Your task to perform on an android device: change your default location settings in chrome Image 0: 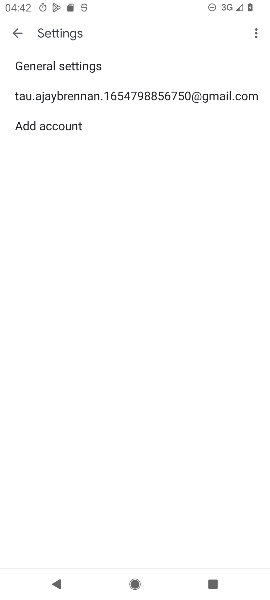
Step 0: press home button
Your task to perform on an android device: change your default location settings in chrome Image 1: 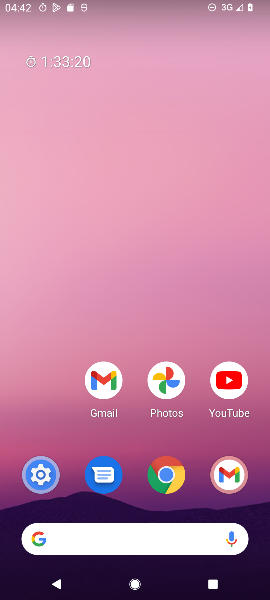
Step 1: drag from (45, 434) to (59, 145)
Your task to perform on an android device: change your default location settings in chrome Image 2: 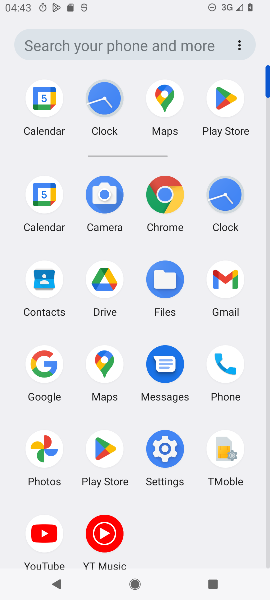
Step 2: click (166, 198)
Your task to perform on an android device: change your default location settings in chrome Image 3: 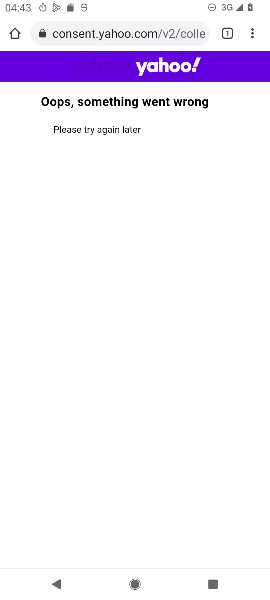
Step 3: click (252, 36)
Your task to perform on an android device: change your default location settings in chrome Image 4: 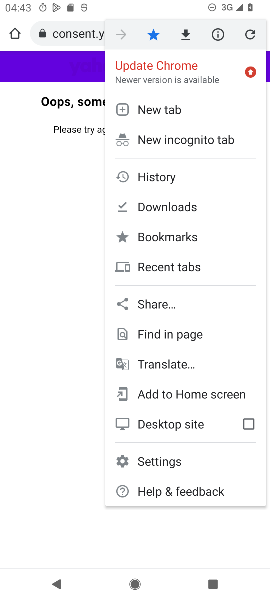
Step 4: click (180, 457)
Your task to perform on an android device: change your default location settings in chrome Image 5: 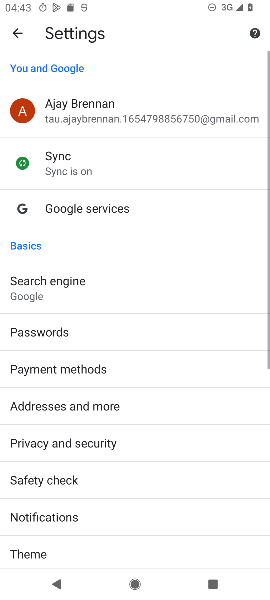
Step 5: drag from (180, 457) to (184, 378)
Your task to perform on an android device: change your default location settings in chrome Image 6: 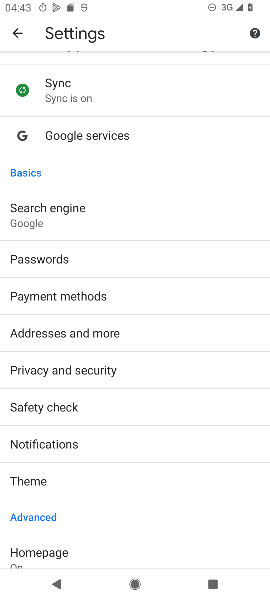
Step 6: drag from (180, 468) to (188, 402)
Your task to perform on an android device: change your default location settings in chrome Image 7: 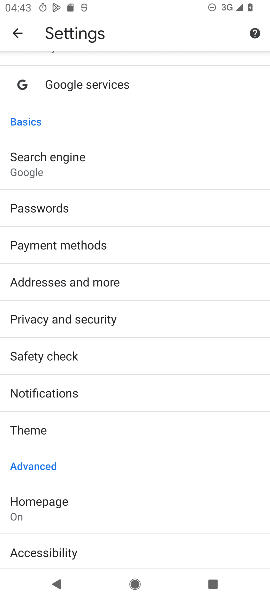
Step 7: drag from (181, 493) to (192, 399)
Your task to perform on an android device: change your default location settings in chrome Image 8: 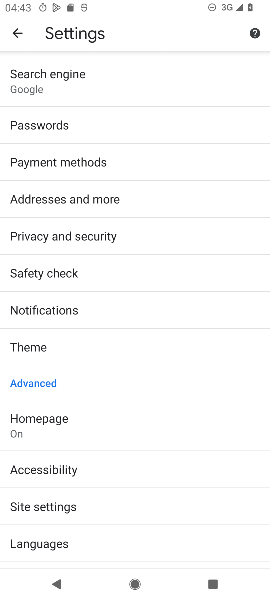
Step 8: drag from (182, 475) to (186, 393)
Your task to perform on an android device: change your default location settings in chrome Image 9: 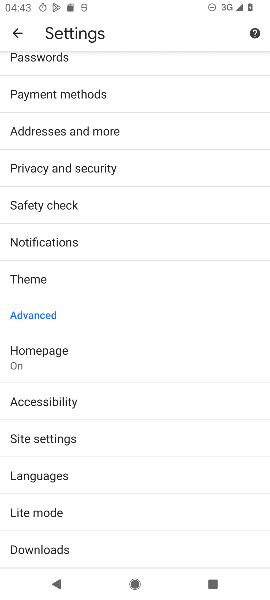
Step 9: drag from (179, 437) to (174, 348)
Your task to perform on an android device: change your default location settings in chrome Image 10: 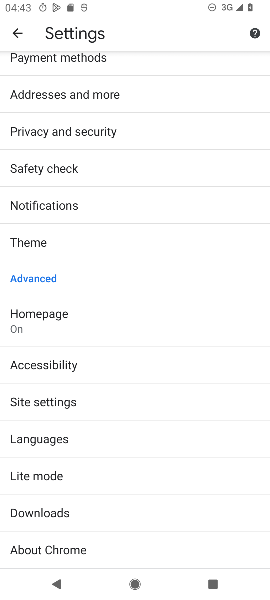
Step 10: drag from (174, 240) to (186, 371)
Your task to perform on an android device: change your default location settings in chrome Image 11: 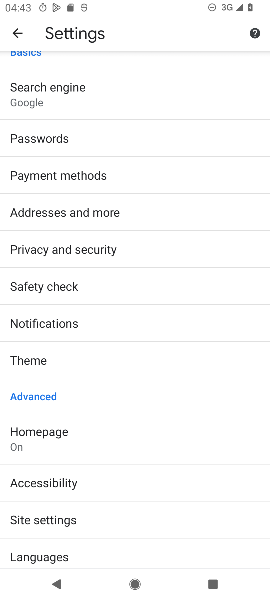
Step 11: click (147, 525)
Your task to perform on an android device: change your default location settings in chrome Image 12: 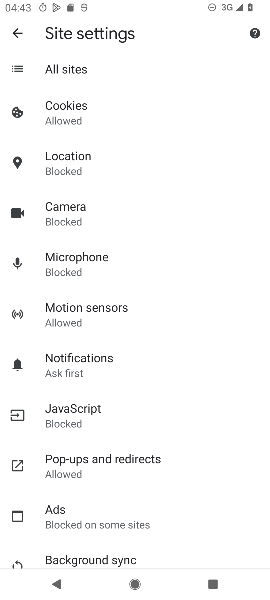
Step 12: drag from (183, 383) to (183, 234)
Your task to perform on an android device: change your default location settings in chrome Image 13: 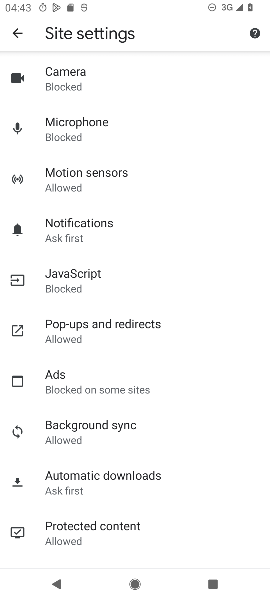
Step 13: drag from (206, 375) to (217, 301)
Your task to perform on an android device: change your default location settings in chrome Image 14: 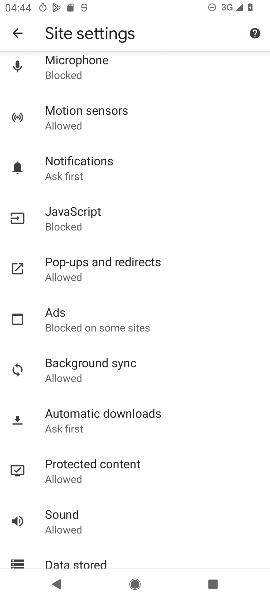
Step 14: drag from (214, 372) to (213, 292)
Your task to perform on an android device: change your default location settings in chrome Image 15: 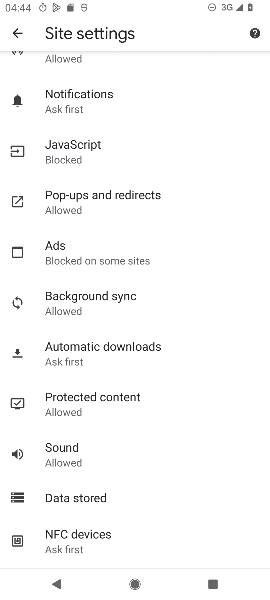
Step 15: drag from (222, 388) to (225, 327)
Your task to perform on an android device: change your default location settings in chrome Image 16: 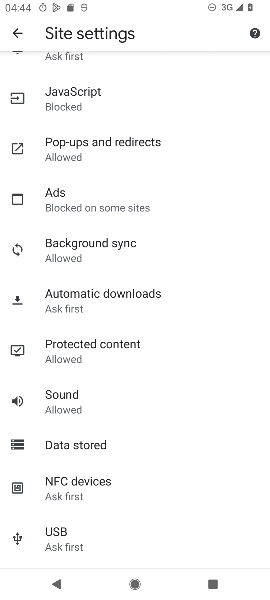
Step 16: drag from (225, 414) to (222, 309)
Your task to perform on an android device: change your default location settings in chrome Image 17: 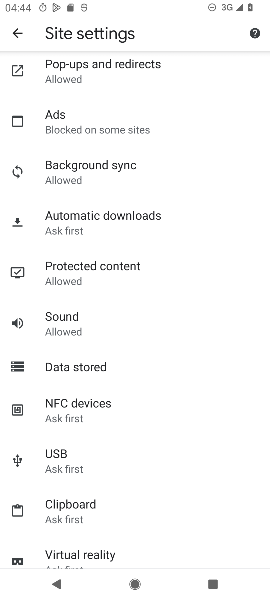
Step 17: drag from (217, 205) to (218, 300)
Your task to perform on an android device: change your default location settings in chrome Image 18: 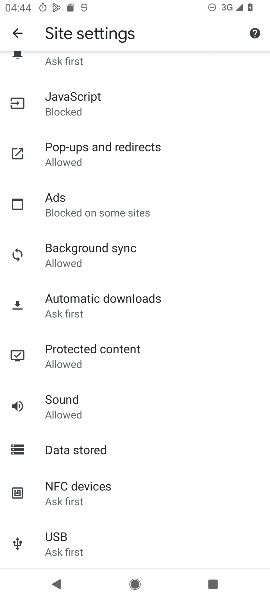
Step 18: drag from (219, 186) to (221, 288)
Your task to perform on an android device: change your default location settings in chrome Image 19: 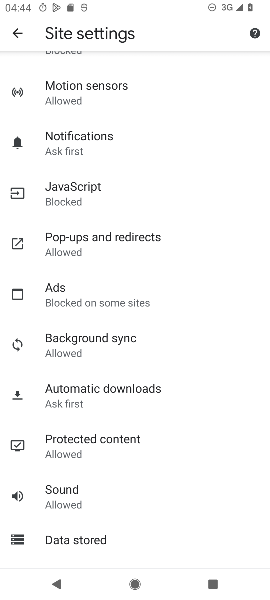
Step 19: drag from (202, 205) to (206, 328)
Your task to perform on an android device: change your default location settings in chrome Image 20: 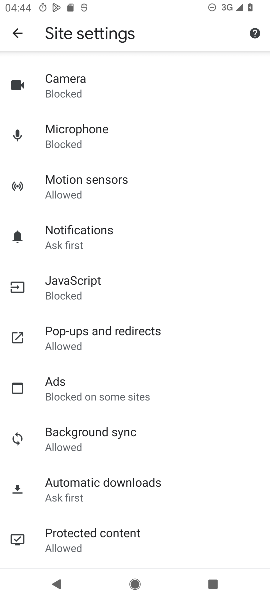
Step 20: drag from (220, 118) to (211, 272)
Your task to perform on an android device: change your default location settings in chrome Image 21: 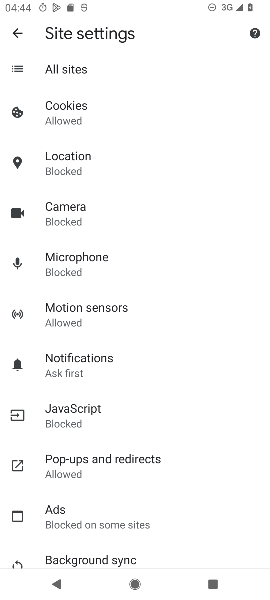
Step 21: click (103, 157)
Your task to perform on an android device: change your default location settings in chrome Image 22: 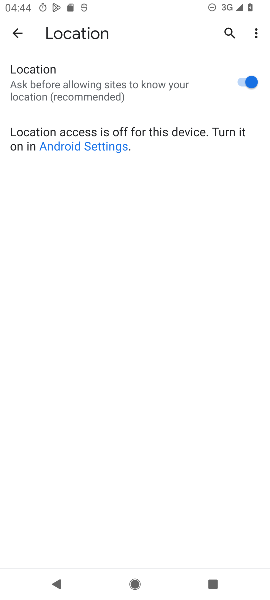
Step 22: click (249, 79)
Your task to perform on an android device: change your default location settings in chrome Image 23: 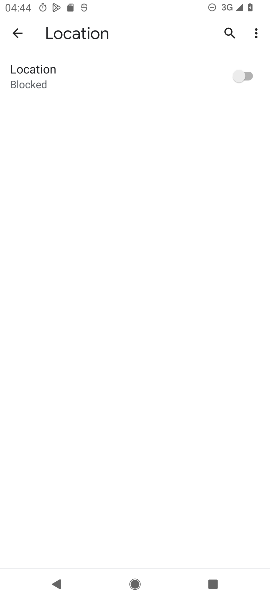
Step 23: task complete